Your task to perform on an android device: find photos in the google photos app Image 0: 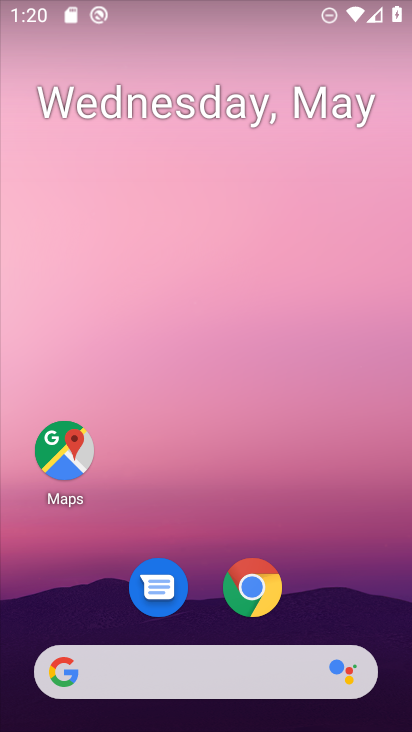
Step 0: drag from (295, 608) to (322, 242)
Your task to perform on an android device: find photos in the google photos app Image 1: 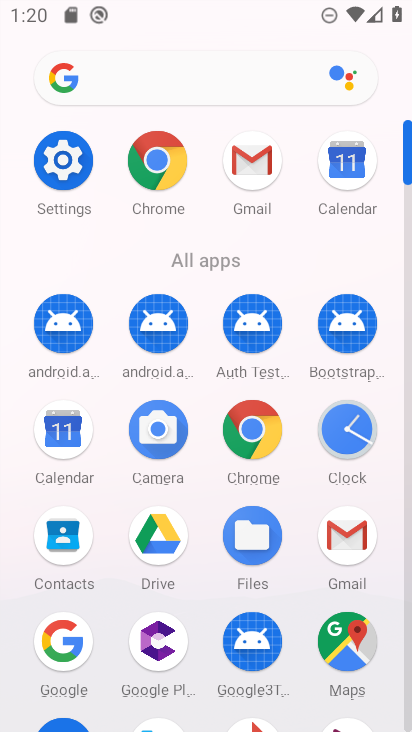
Step 1: drag from (284, 642) to (341, 324)
Your task to perform on an android device: find photos in the google photos app Image 2: 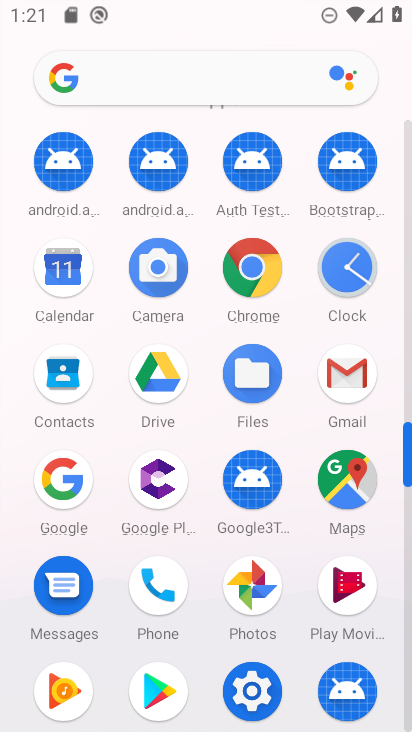
Step 2: click (241, 596)
Your task to perform on an android device: find photos in the google photos app Image 3: 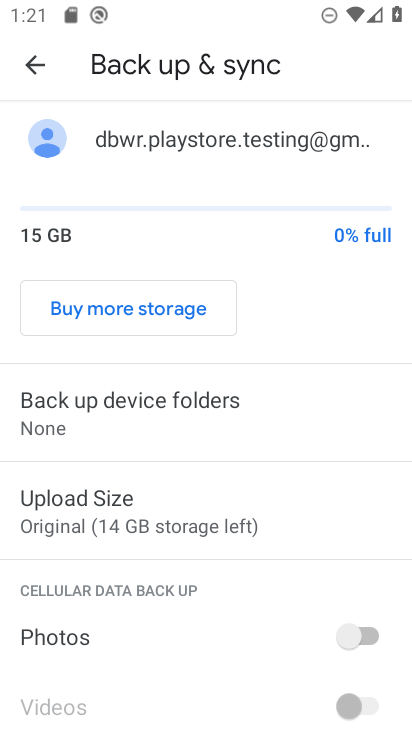
Step 3: click (33, 70)
Your task to perform on an android device: find photos in the google photos app Image 4: 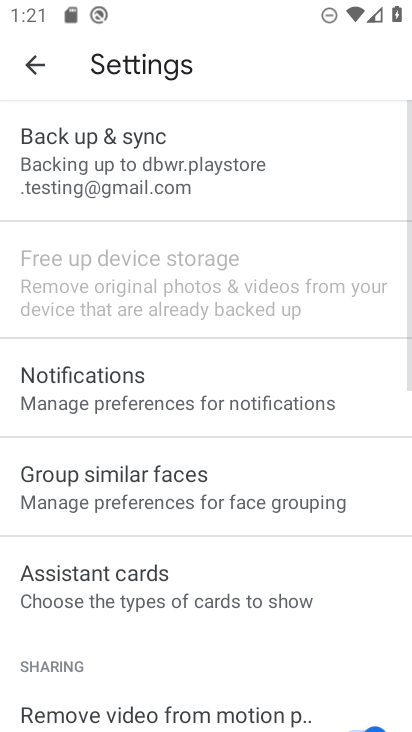
Step 4: click (33, 70)
Your task to perform on an android device: find photos in the google photos app Image 5: 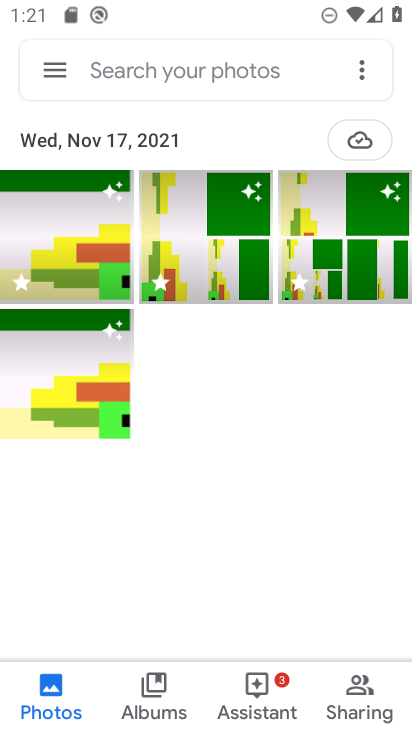
Step 5: click (179, 71)
Your task to perform on an android device: find photos in the google photos app Image 6: 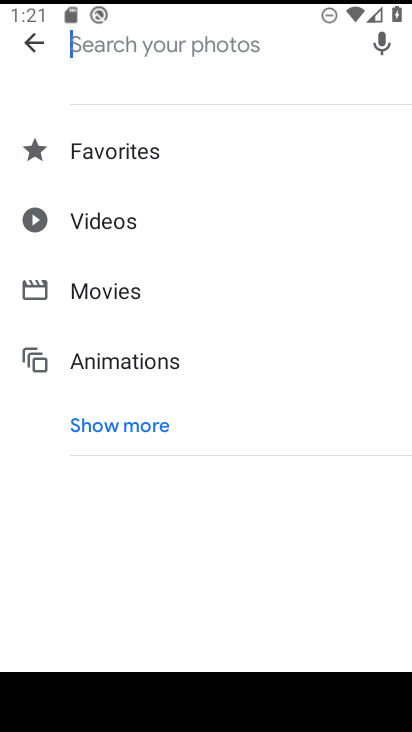
Step 6: click (112, 160)
Your task to perform on an android device: find photos in the google photos app Image 7: 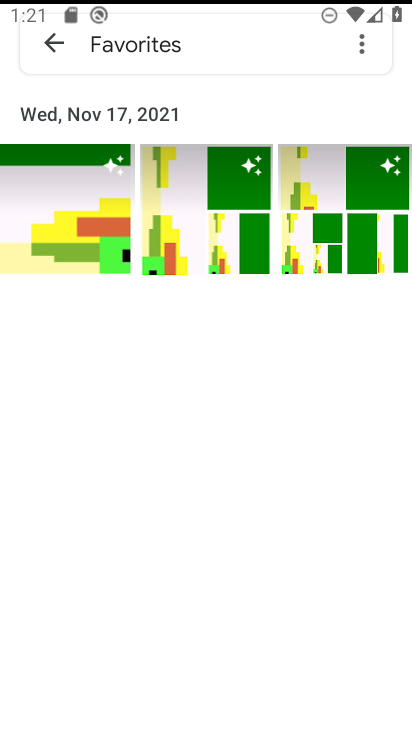
Step 7: task complete